Your task to perform on an android device: clear history in the chrome app Image 0: 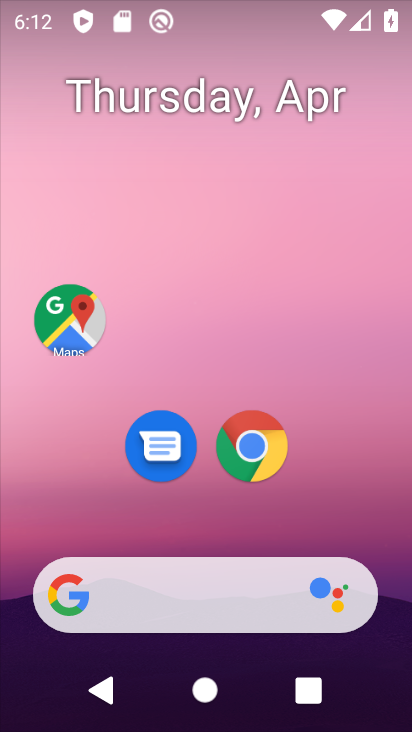
Step 0: click (256, 447)
Your task to perform on an android device: clear history in the chrome app Image 1: 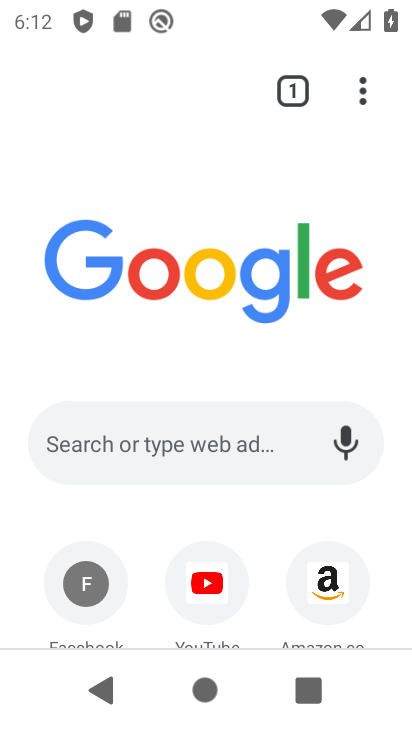
Step 1: click (365, 90)
Your task to perform on an android device: clear history in the chrome app Image 2: 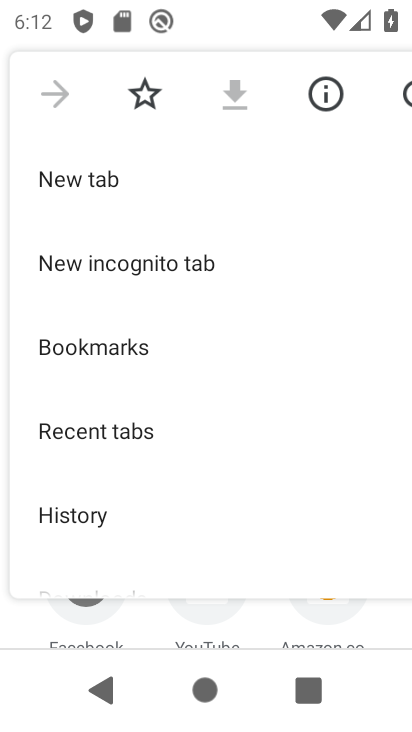
Step 2: click (95, 508)
Your task to perform on an android device: clear history in the chrome app Image 3: 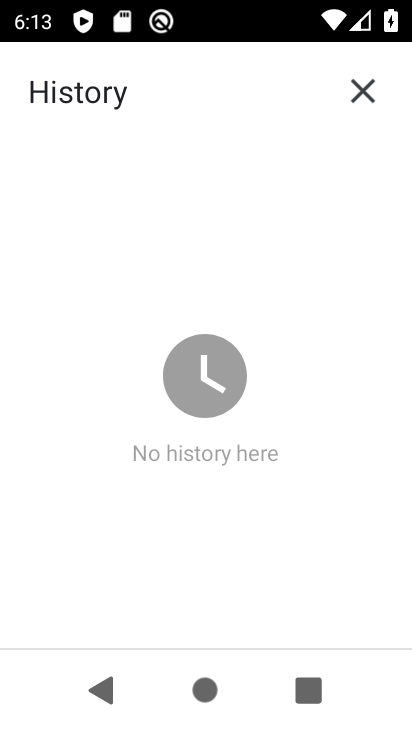
Step 3: task complete